Your task to perform on an android device: Open the map Image 0: 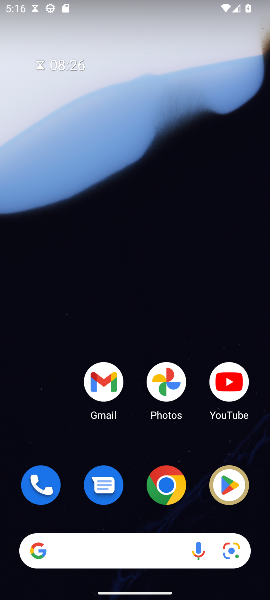
Step 0: drag from (129, 478) to (223, 10)
Your task to perform on an android device: Open the map Image 1: 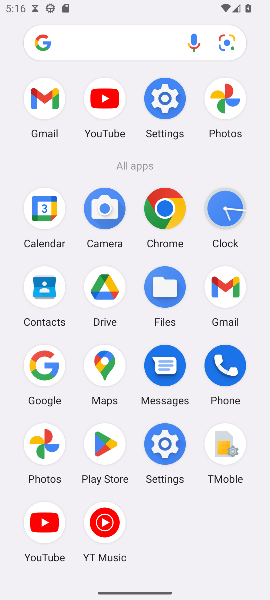
Step 1: click (105, 388)
Your task to perform on an android device: Open the map Image 2: 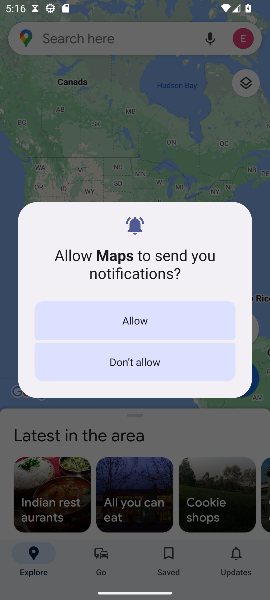
Step 2: click (148, 299)
Your task to perform on an android device: Open the map Image 3: 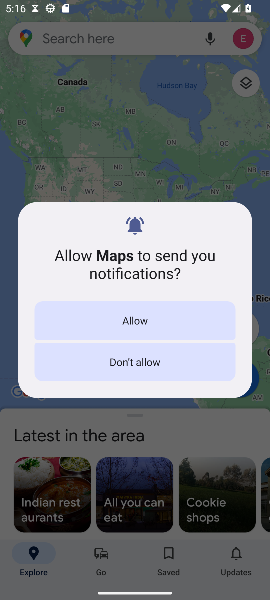
Step 3: click (151, 320)
Your task to perform on an android device: Open the map Image 4: 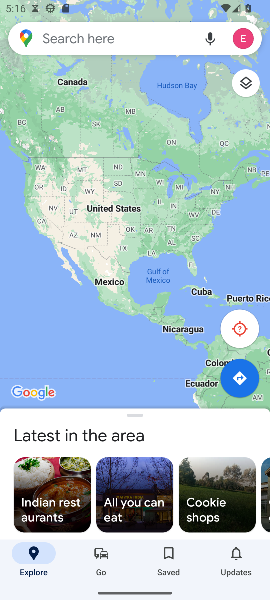
Step 4: task complete